Your task to perform on an android device: see creations saved in the google photos Image 0: 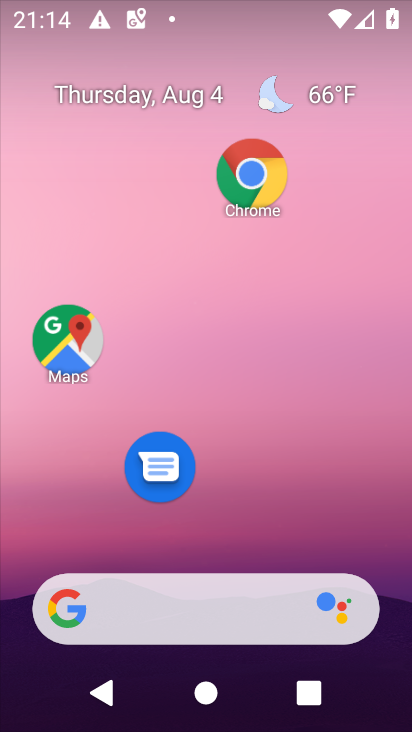
Step 0: press home button
Your task to perform on an android device: see creations saved in the google photos Image 1: 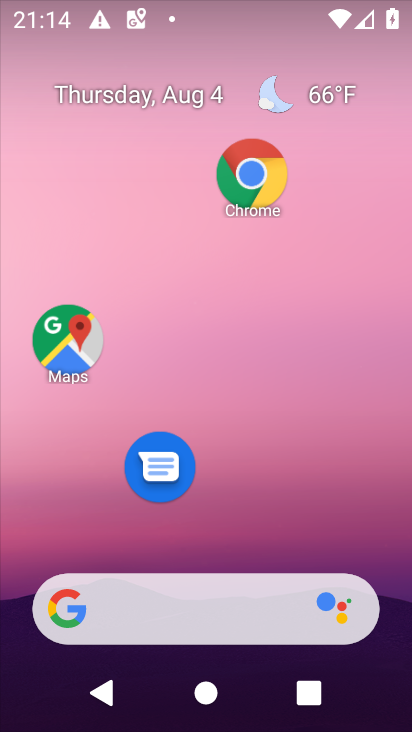
Step 1: drag from (193, 585) to (140, 123)
Your task to perform on an android device: see creations saved in the google photos Image 2: 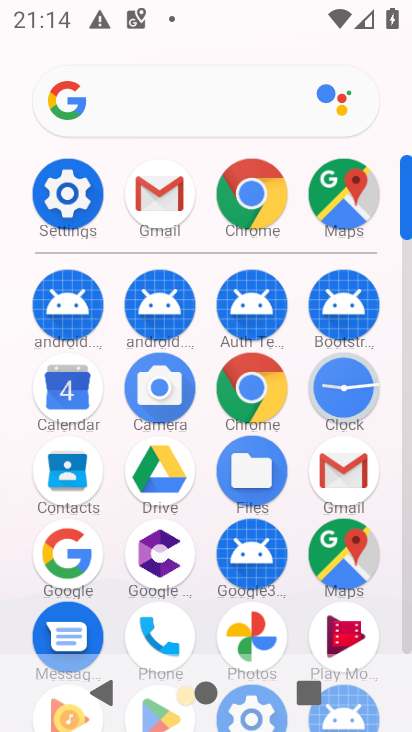
Step 2: click (243, 630)
Your task to perform on an android device: see creations saved in the google photos Image 3: 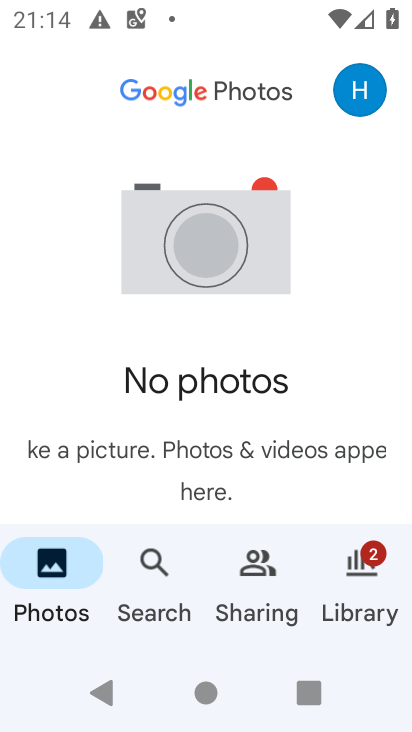
Step 3: click (155, 591)
Your task to perform on an android device: see creations saved in the google photos Image 4: 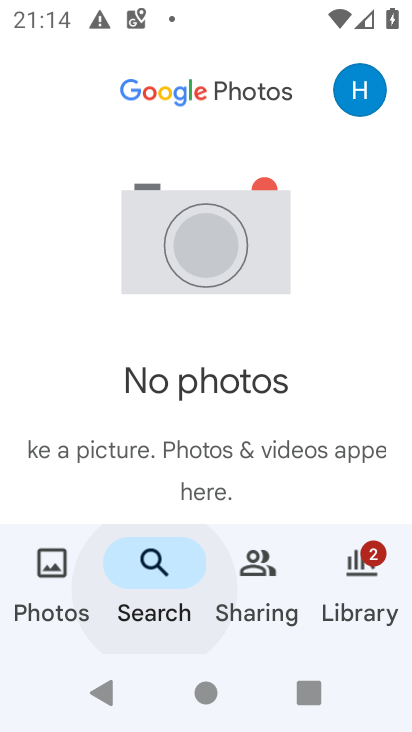
Step 4: click (155, 591)
Your task to perform on an android device: see creations saved in the google photos Image 5: 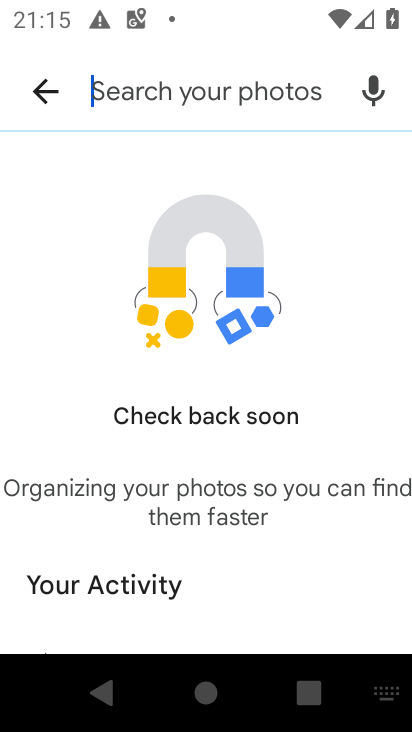
Step 5: drag from (208, 500) to (229, 72)
Your task to perform on an android device: see creations saved in the google photos Image 6: 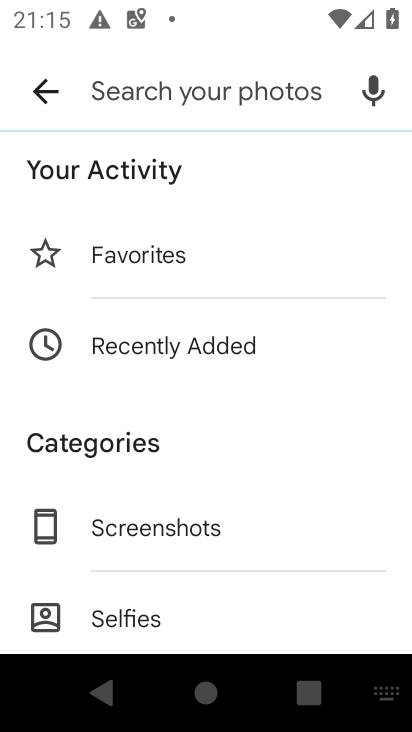
Step 6: drag from (197, 536) to (130, 256)
Your task to perform on an android device: see creations saved in the google photos Image 7: 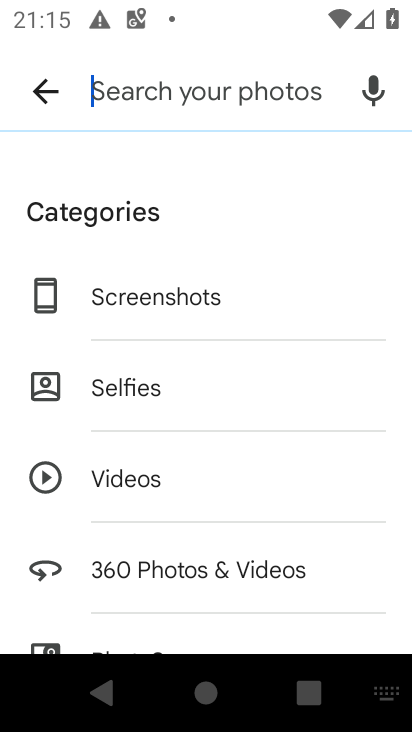
Step 7: drag from (212, 523) to (222, 259)
Your task to perform on an android device: see creations saved in the google photos Image 8: 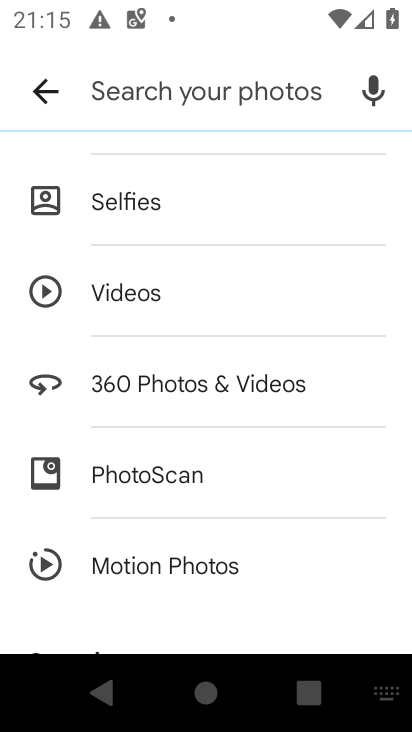
Step 8: drag from (158, 541) to (90, 231)
Your task to perform on an android device: see creations saved in the google photos Image 9: 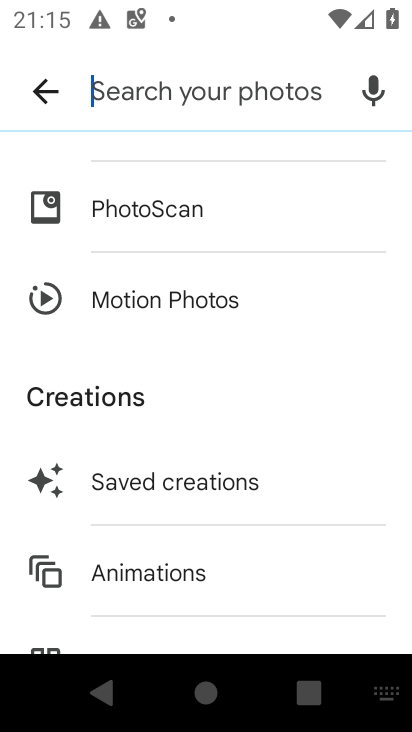
Step 9: click (88, 491)
Your task to perform on an android device: see creations saved in the google photos Image 10: 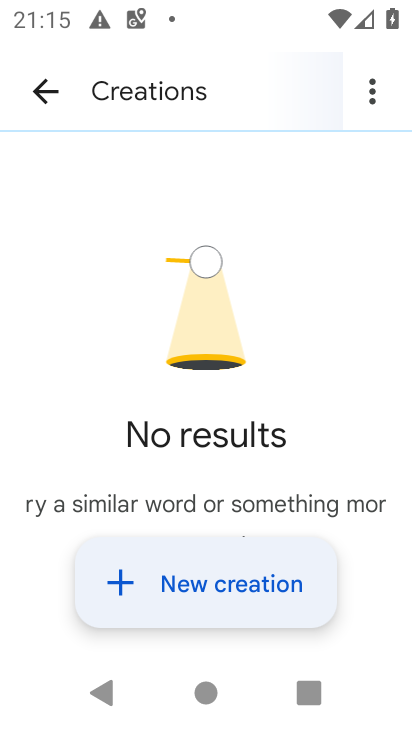
Step 10: task complete